Your task to perform on an android device: Open Wikipedia Image 0: 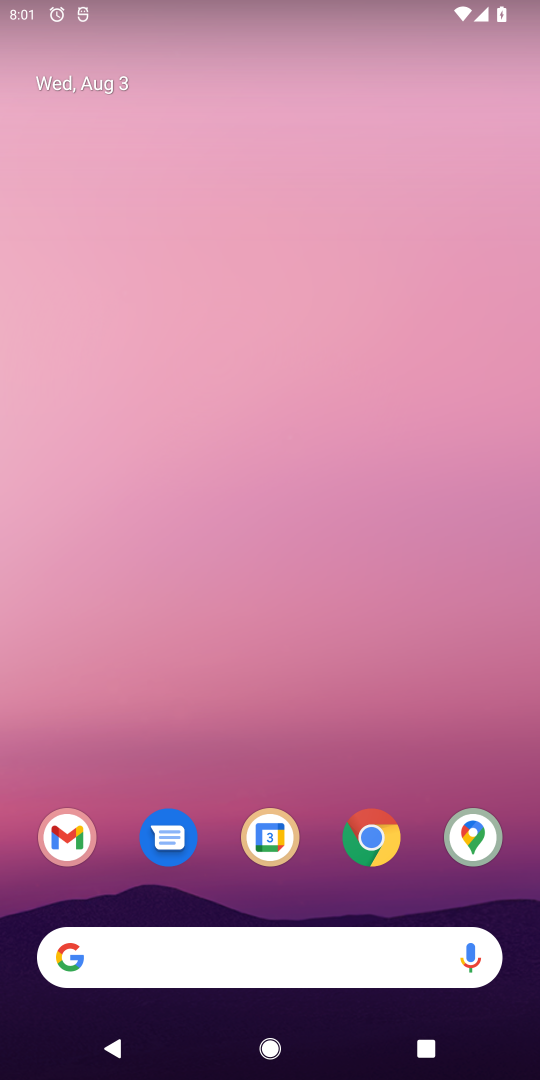
Step 0: press home button
Your task to perform on an android device: Open Wikipedia Image 1: 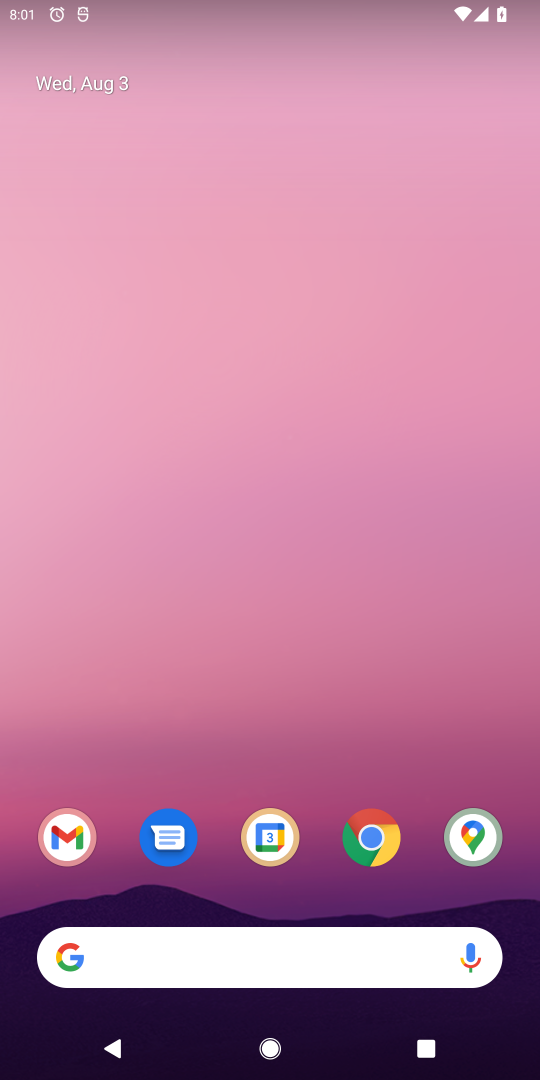
Step 1: click (60, 959)
Your task to perform on an android device: Open Wikipedia Image 2: 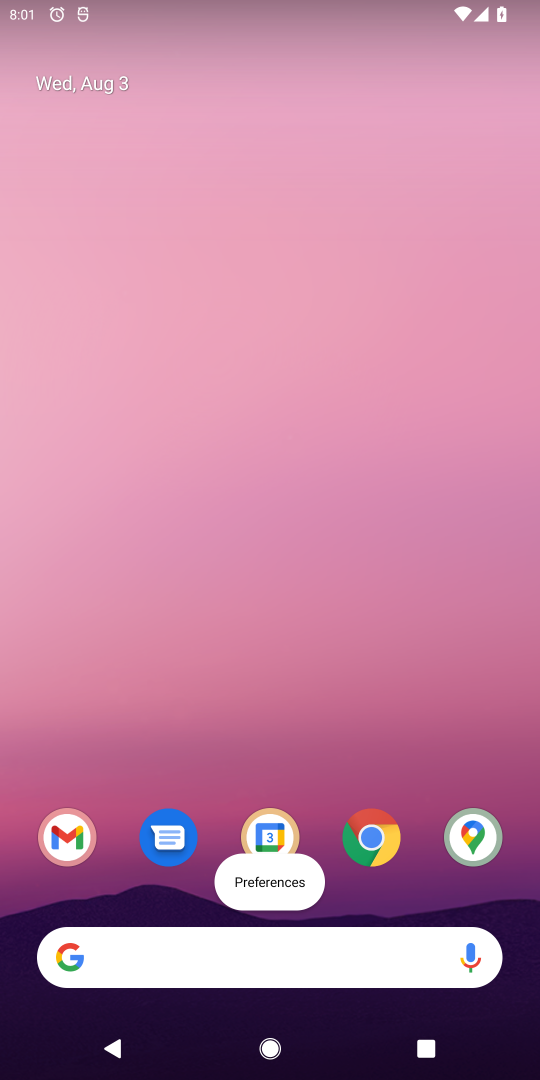
Step 2: click (60, 959)
Your task to perform on an android device: Open Wikipedia Image 3: 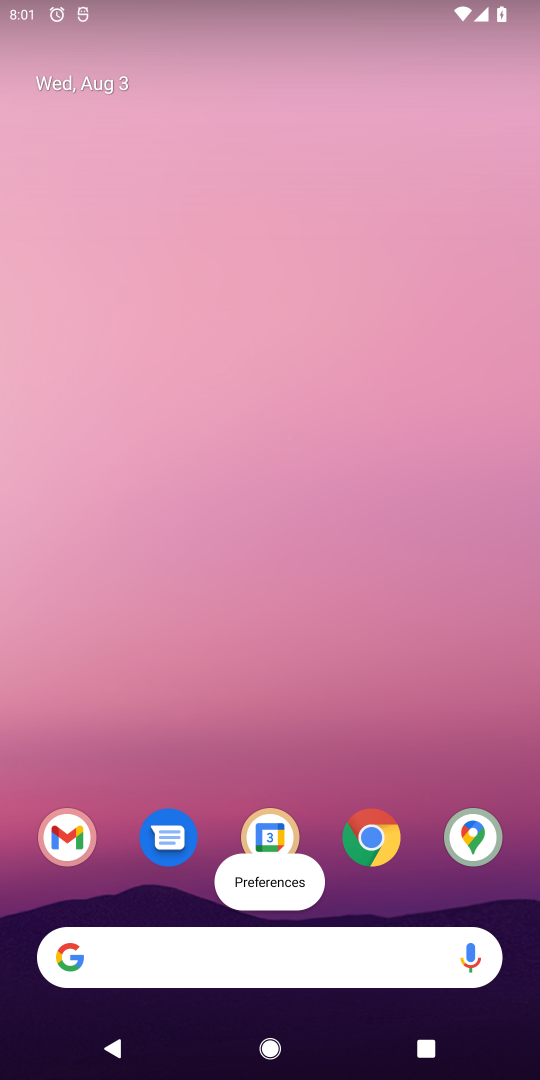
Step 3: click (74, 964)
Your task to perform on an android device: Open Wikipedia Image 4: 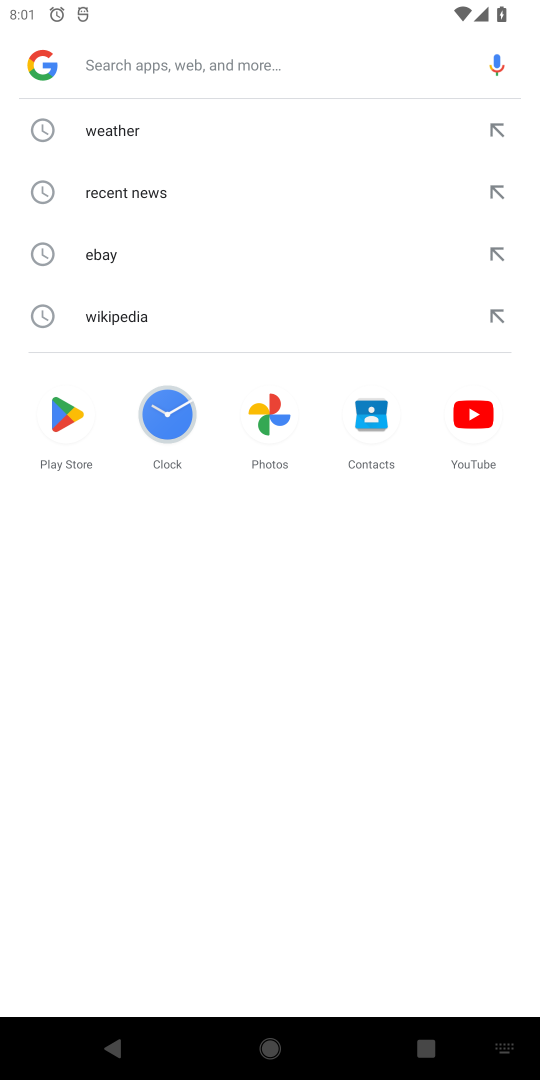
Step 4: click (134, 307)
Your task to perform on an android device: Open Wikipedia Image 5: 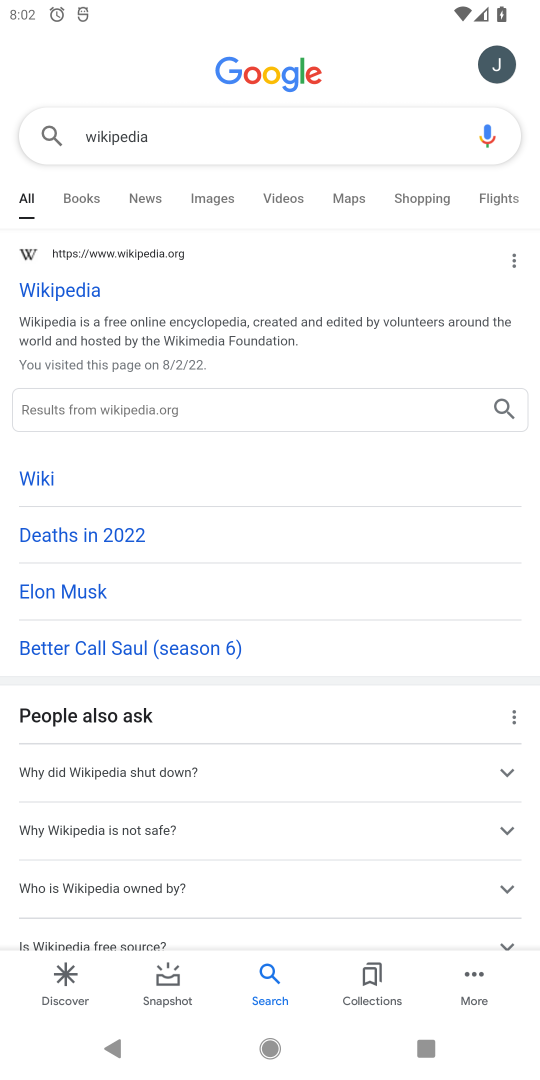
Step 5: click (62, 295)
Your task to perform on an android device: Open Wikipedia Image 6: 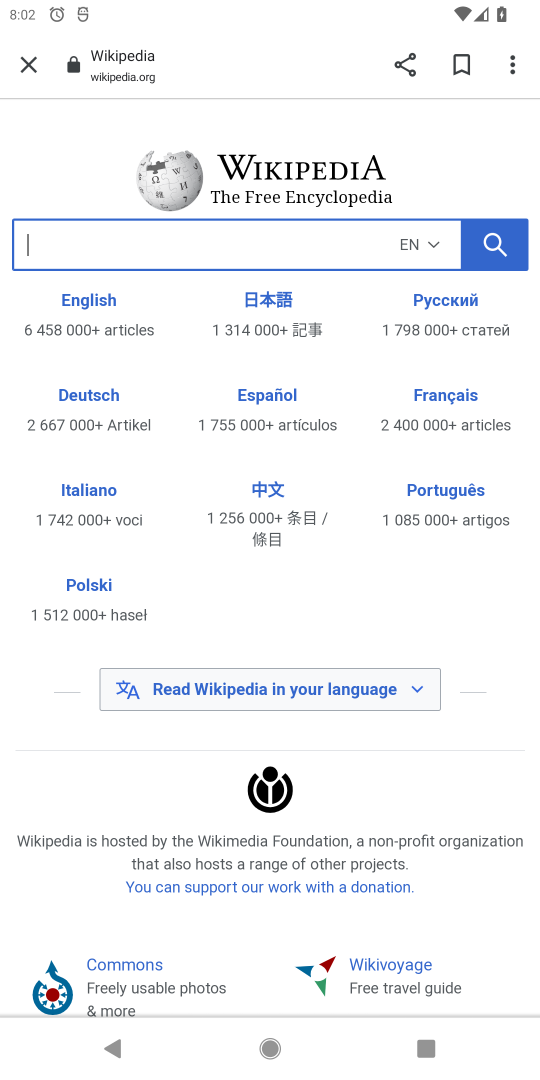
Step 6: task complete